Your task to perform on an android device: What is the recent news? Image 0: 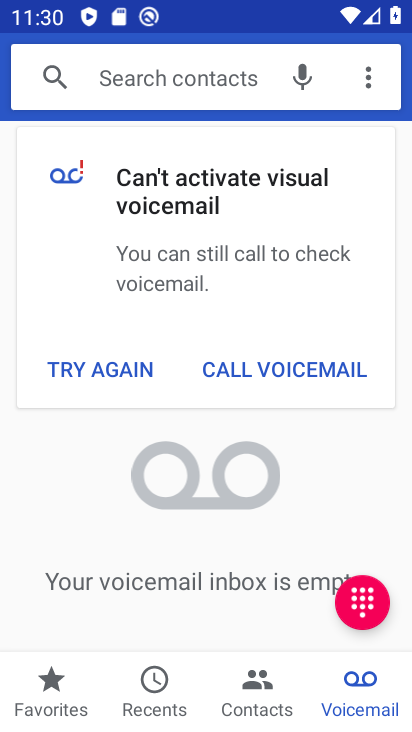
Step 0: press home button
Your task to perform on an android device: What is the recent news? Image 1: 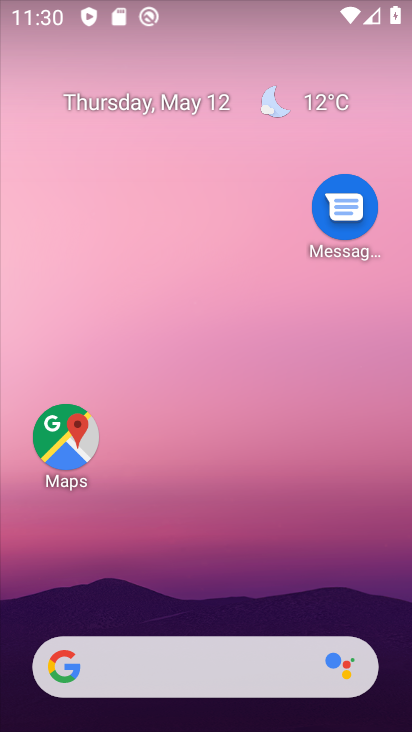
Step 1: drag from (255, 542) to (368, 66)
Your task to perform on an android device: What is the recent news? Image 2: 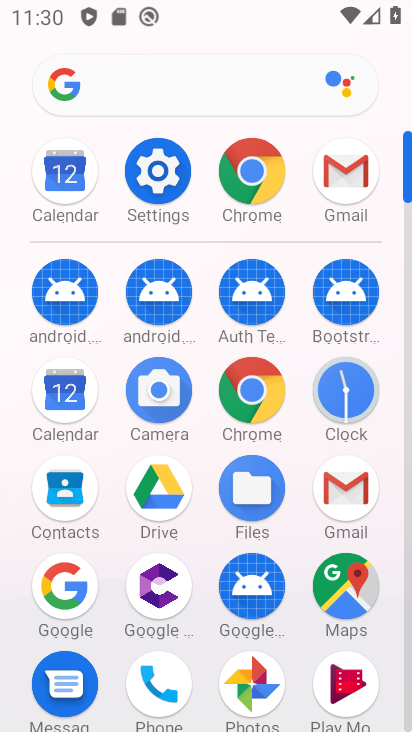
Step 2: click (254, 166)
Your task to perform on an android device: What is the recent news? Image 3: 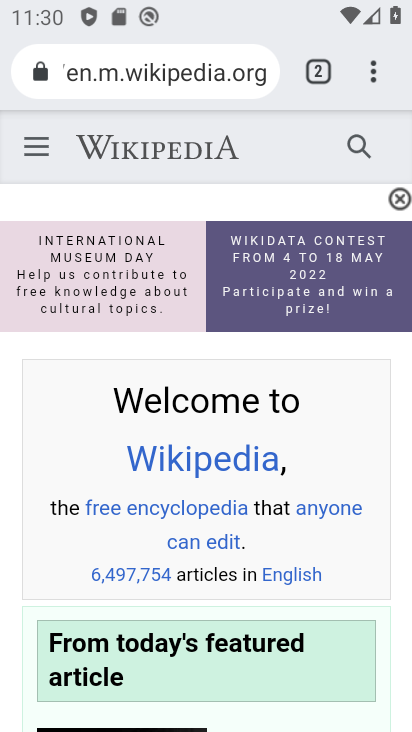
Step 3: click (194, 74)
Your task to perform on an android device: What is the recent news? Image 4: 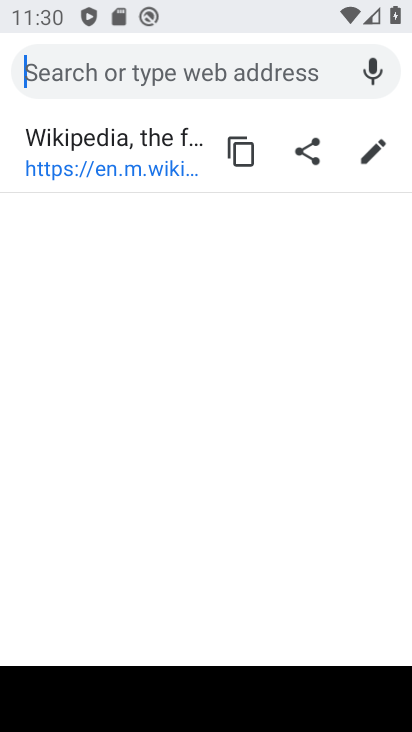
Step 4: type "What is the recent news?"
Your task to perform on an android device: What is the recent news? Image 5: 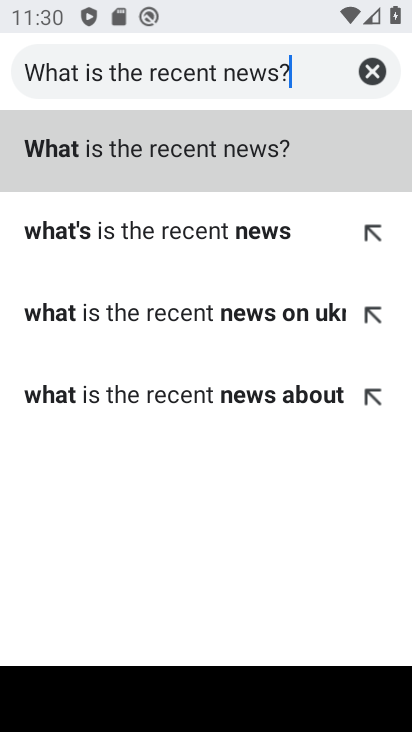
Step 5: click (121, 170)
Your task to perform on an android device: What is the recent news? Image 6: 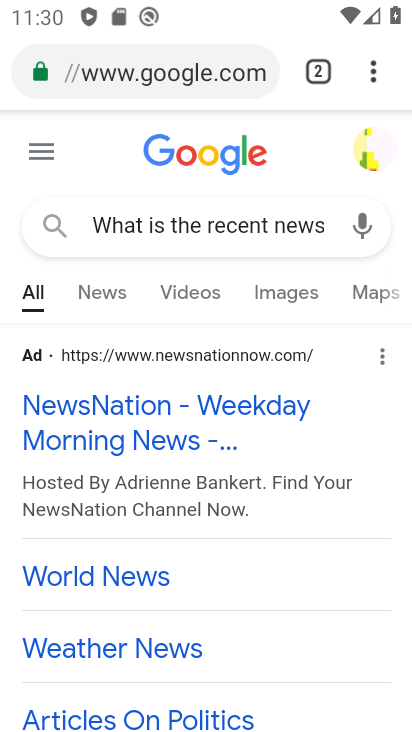
Step 6: task complete